Your task to perform on an android device: What's the US dollar exchange rate against the Australian Dollar? Image 0: 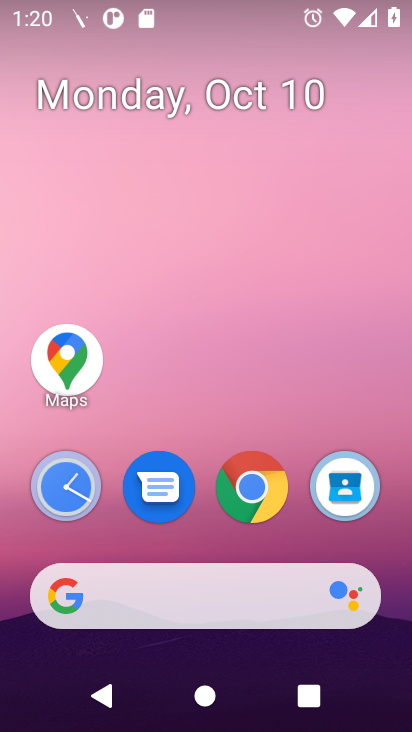
Step 0: click (253, 489)
Your task to perform on an android device: What's the US dollar exchange rate against the Australian Dollar? Image 1: 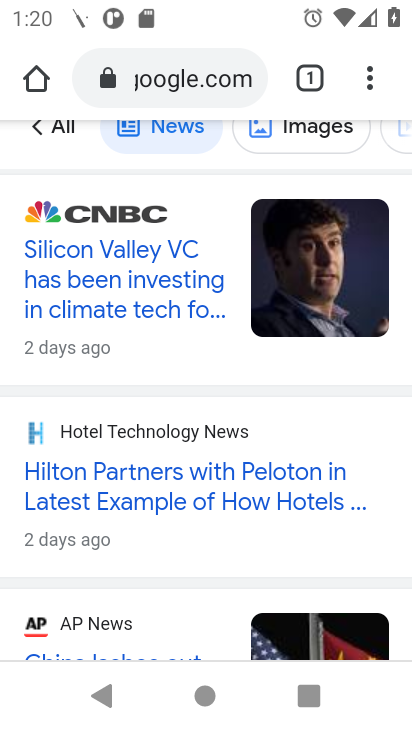
Step 1: click (187, 97)
Your task to perform on an android device: What's the US dollar exchange rate against the Australian Dollar? Image 2: 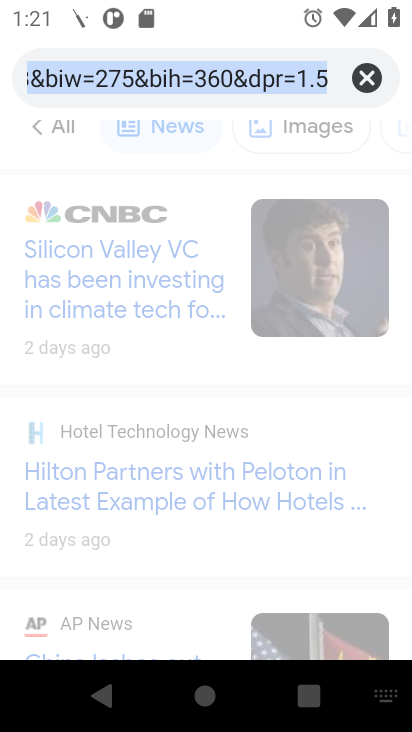
Step 2: type "us dollar exchange rate against australian dollar"
Your task to perform on an android device: What's the US dollar exchange rate against the Australian Dollar? Image 3: 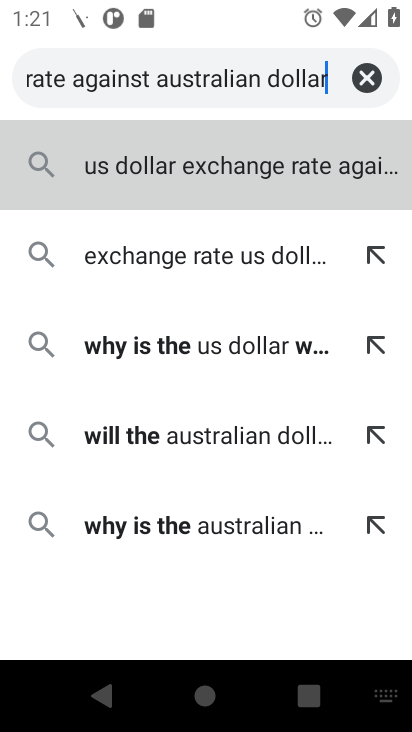
Step 3: type ""
Your task to perform on an android device: What's the US dollar exchange rate against the Australian Dollar? Image 4: 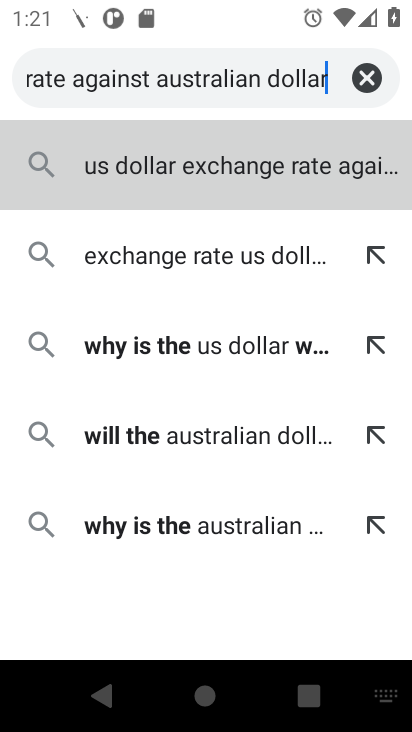
Step 4: press enter
Your task to perform on an android device: What's the US dollar exchange rate against the Australian Dollar? Image 5: 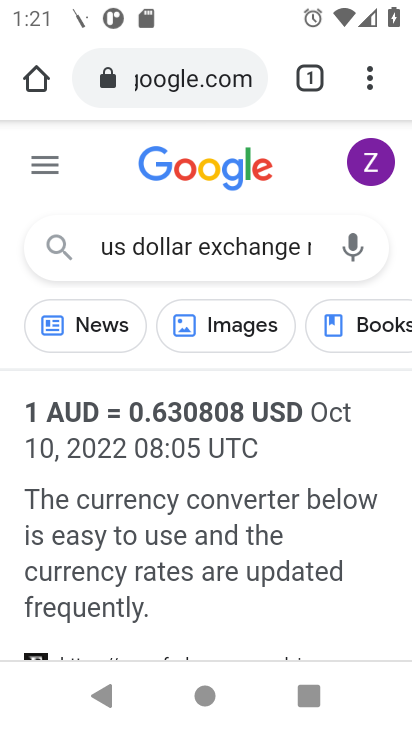
Step 5: task complete